Your task to perform on an android device: Show me popular games on the Play Store Image 0: 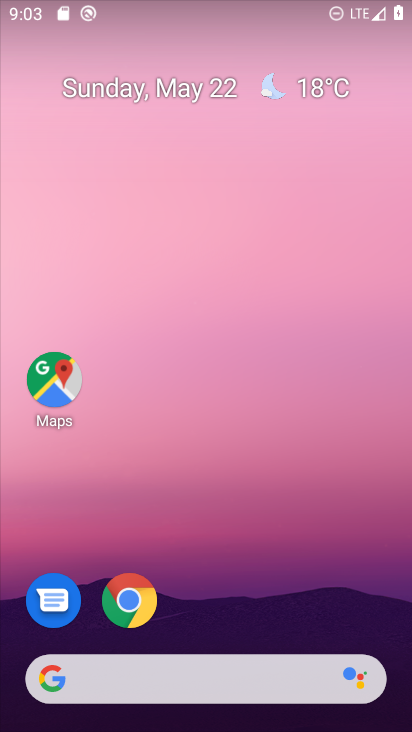
Step 0: drag from (361, 614) to (243, 91)
Your task to perform on an android device: Show me popular games on the Play Store Image 1: 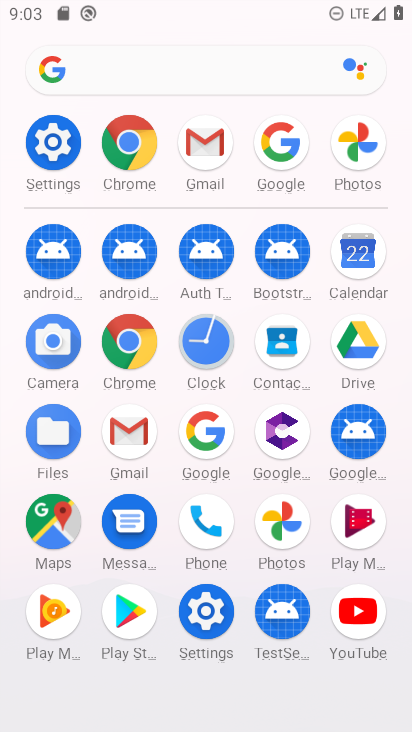
Step 1: click (140, 623)
Your task to perform on an android device: Show me popular games on the Play Store Image 2: 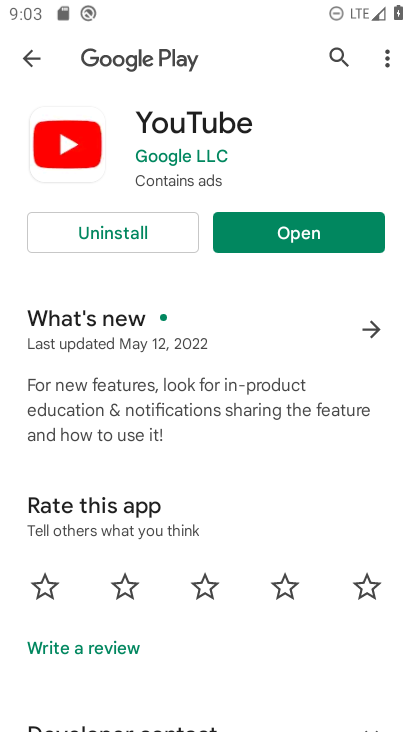
Step 2: press back button
Your task to perform on an android device: Show me popular games on the Play Store Image 3: 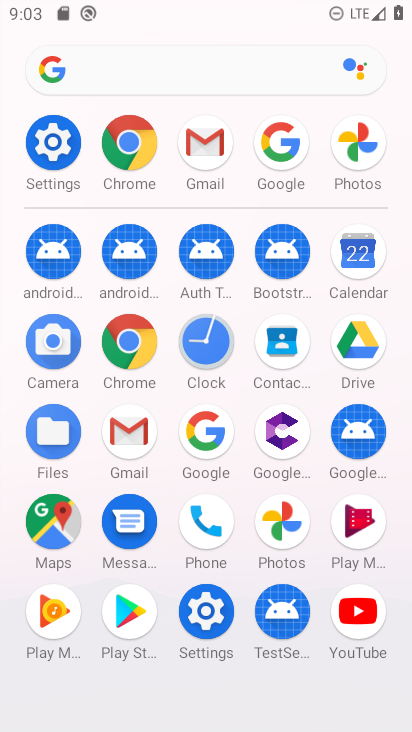
Step 3: click (127, 625)
Your task to perform on an android device: Show me popular games on the Play Store Image 4: 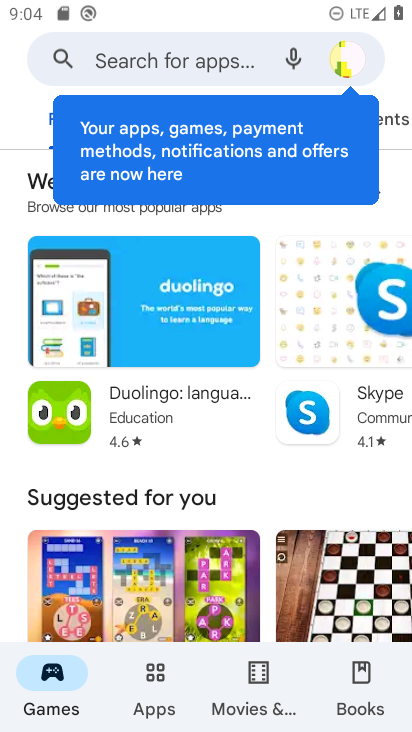
Step 4: task complete